Your task to perform on an android device: Open settings Image 0: 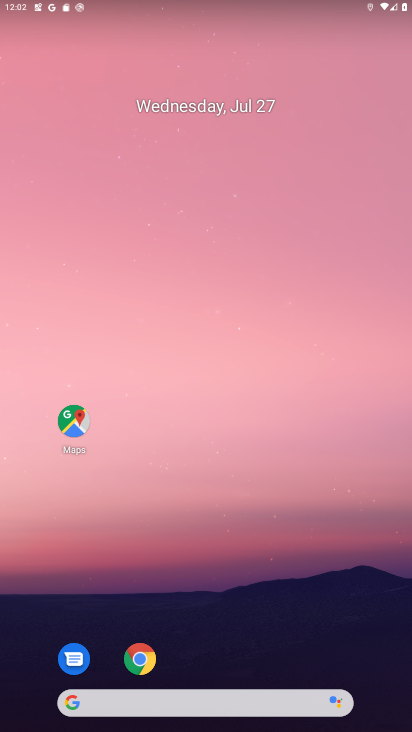
Step 0: drag from (192, 699) to (253, 7)
Your task to perform on an android device: Open settings Image 1: 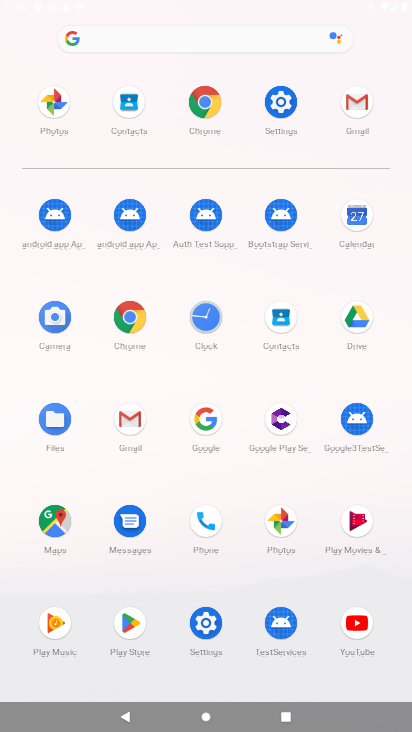
Step 1: click (270, 106)
Your task to perform on an android device: Open settings Image 2: 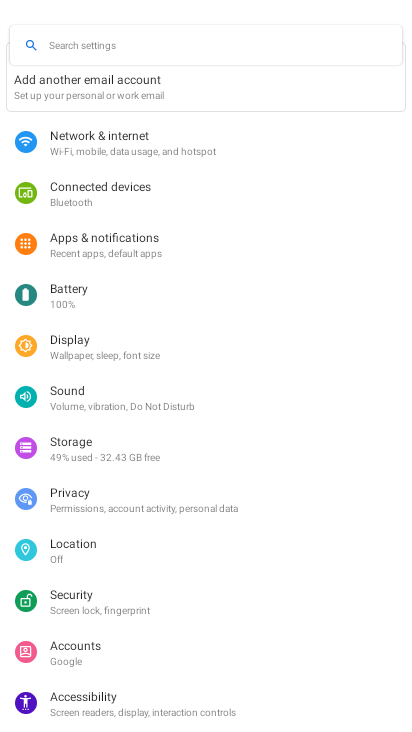
Step 2: task complete